Your task to perform on an android device: turn on sleep mode Image 0: 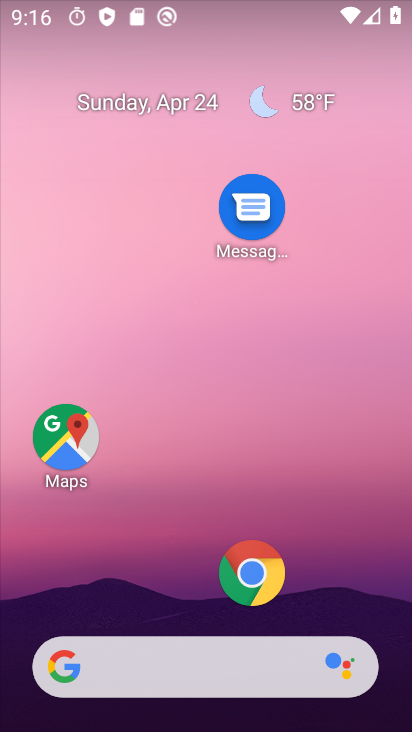
Step 0: drag from (127, 577) to (216, 0)
Your task to perform on an android device: turn on sleep mode Image 1: 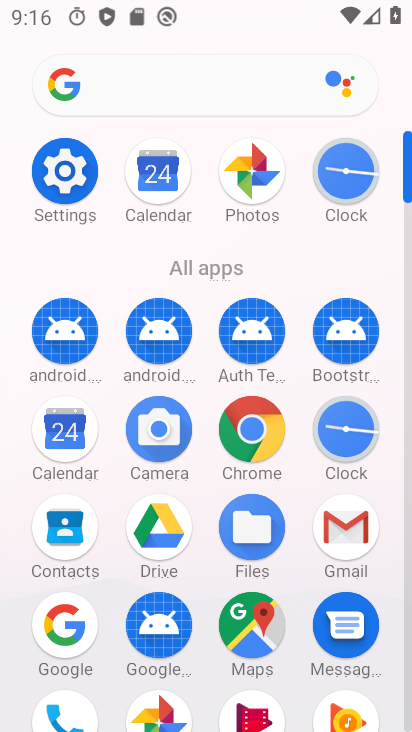
Step 1: click (76, 201)
Your task to perform on an android device: turn on sleep mode Image 2: 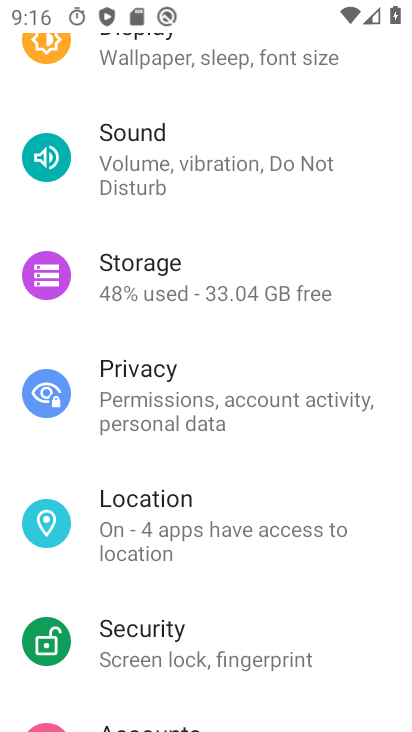
Step 2: drag from (200, 317) to (137, 726)
Your task to perform on an android device: turn on sleep mode Image 3: 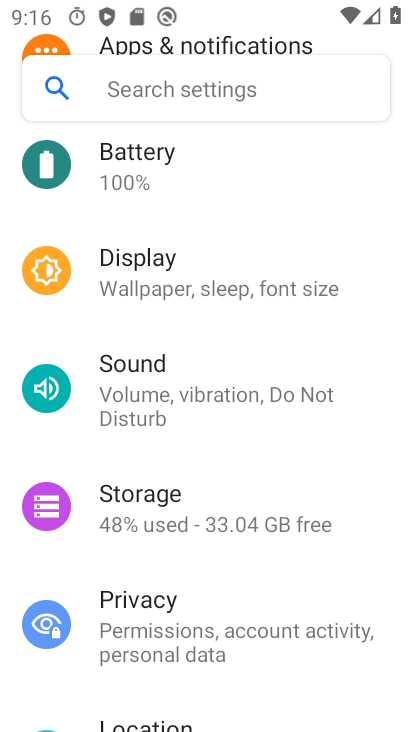
Step 3: click (227, 90)
Your task to perform on an android device: turn on sleep mode Image 4: 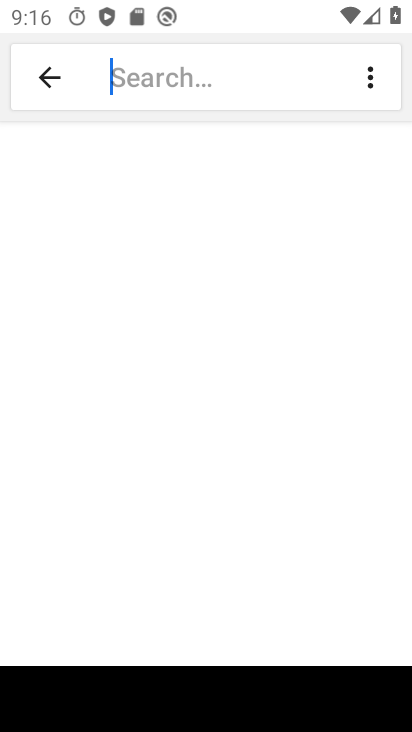
Step 4: type "sleep mode"
Your task to perform on an android device: turn on sleep mode Image 5: 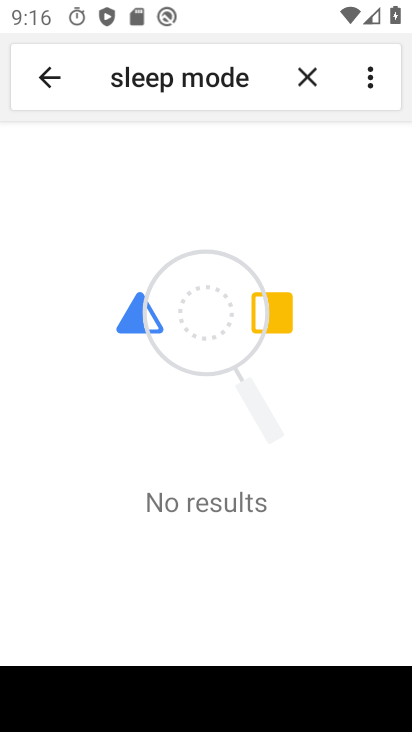
Step 5: task complete